Your task to perform on an android device: Search for vegetarian restaurants on Maps Image 0: 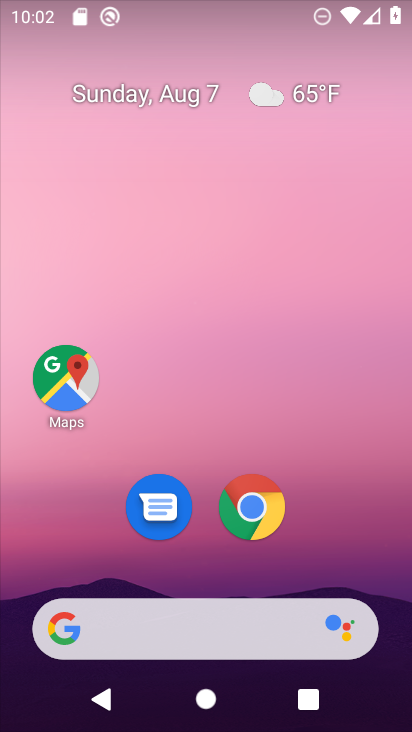
Step 0: drag from (396, 555) to (336, 78)
Your task to perform on an android device: Search for vegetarian restaurants on Maps Image 1: 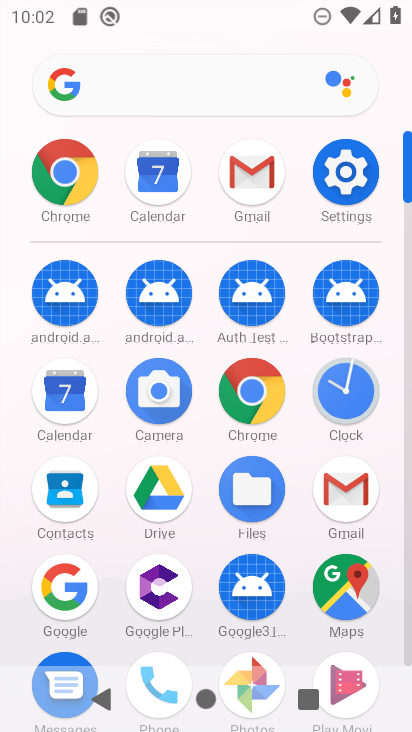
Step 1: click (351, 593)
Your task to perform on an android device: Search for vegetarian restaurants on Maps Image 2: 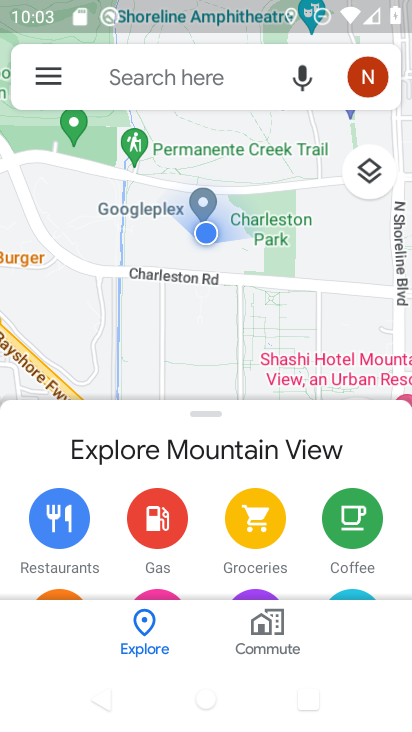
Step 2: click (200, 65)
Your task to perform on an android device: Search for vegetarian restaurants on Maps Image 3: 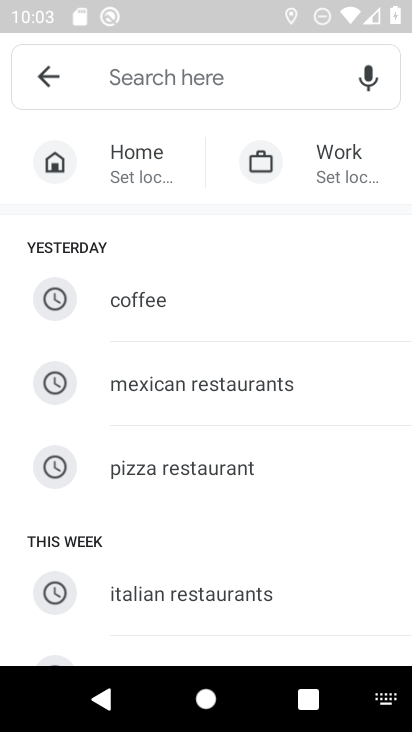
Step 3: type "Vegetarian restaurants"
Your task to perform on an android device: Search for vegetarian restaurants on Maps Image 4: 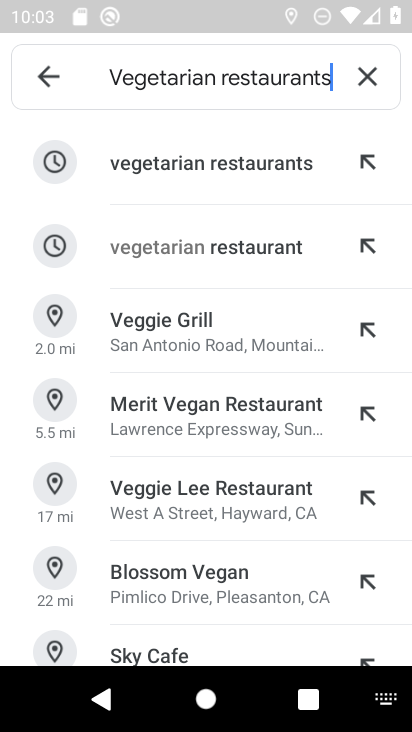
Step 4: press enter
Your task to perform on an android device: Search for vegetarian restaurants on Maps Image 5: 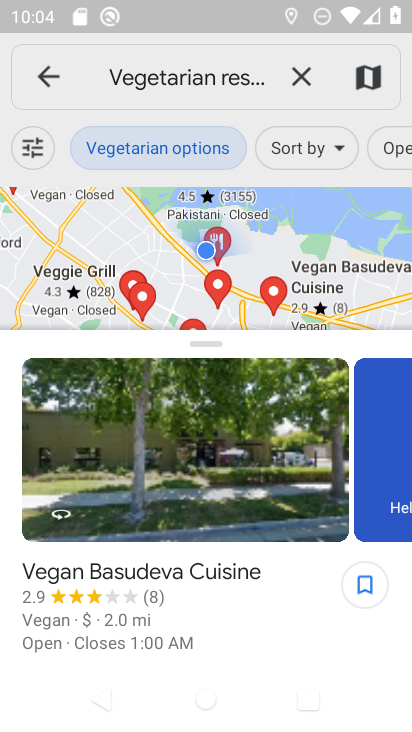
Step 5: task complete